Your task to perform on an android device: turn off notifications in google photos Image 0: 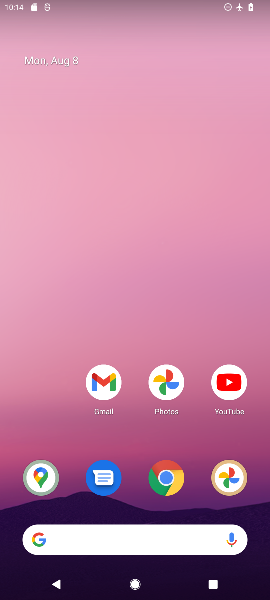
Step 0: drag from (125, 515) to (252, 25)
Your task to perform on an android device: turn off notifications in google photos Image 1: 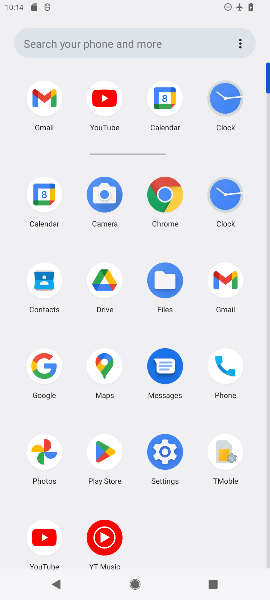
Step 1: click (56, 463)
Your task to perform on an android device: turn off notifications in google photos Image 2: 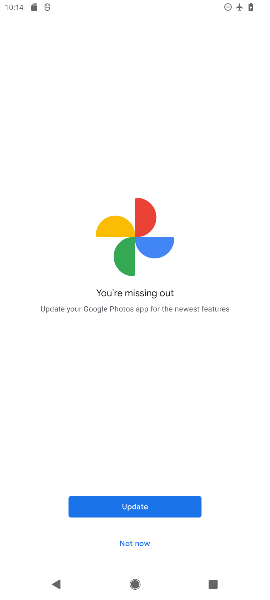
Step 2: click (131, 544)
Your task to perform on an android device: turn off notifications in google photos Image 3: 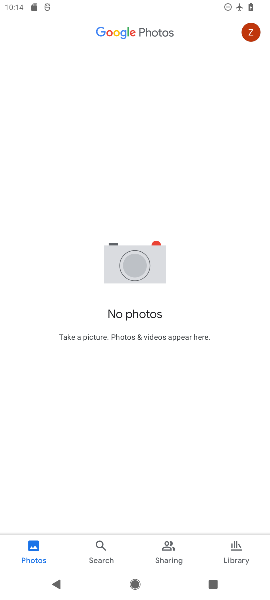
Step 3: click (244, 30)
Your task to perform on an android device: turn off notifications in google photos Image 4: 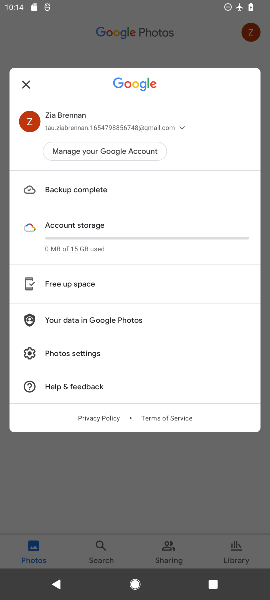
Step 4: click (77, 361)
Your task to perform on an android device: turn off notifications in google photos Image 5: 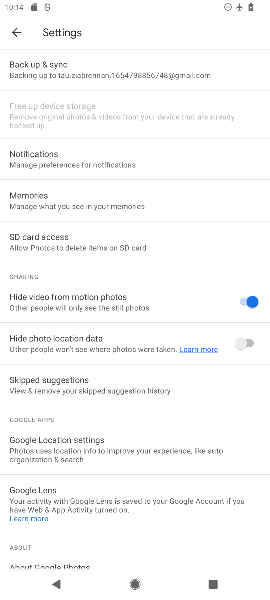
Step 5: click (45, 150)
Your task to perform on an android device: turn off notifications in google photos Image 6: 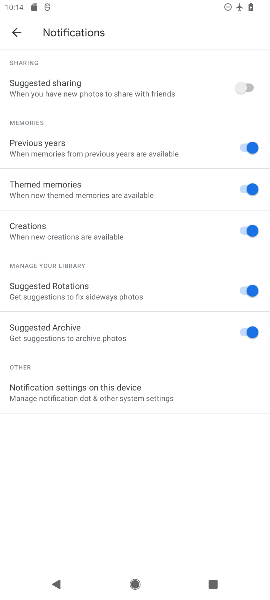
Step 6: click (98, 391)
Your task to perform on an android device: turn off notifications in google photos Image 7: 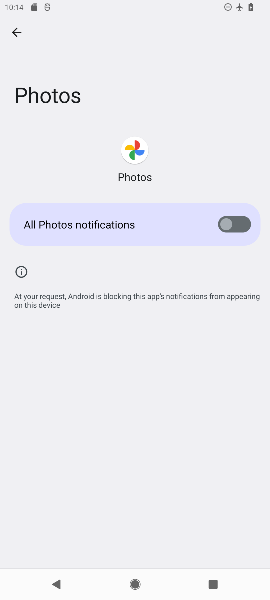
Step 7: click (230, 229)
Your task to perform on an android device: turn off notifications in google photos Image 8: 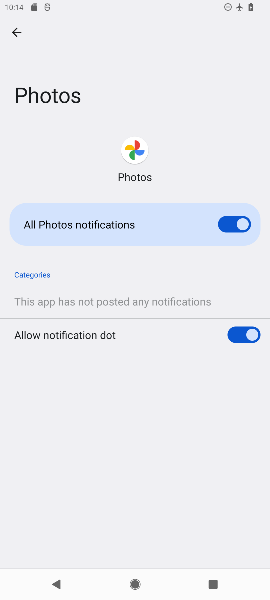
Step 8: task complete